Your task to perform on an android device: see tabs open on other devices in the chrome app Image 0: 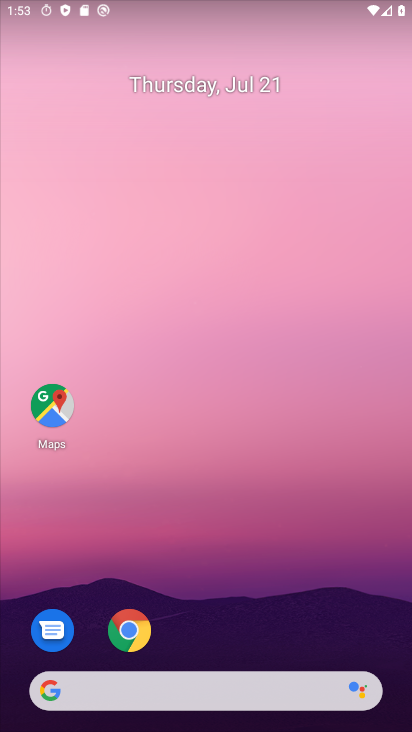
Step 0: drag from (204, 646) to (246, 110)
Your task to perform on an android device: see tabs open on other devices in the chrome app Image 1: 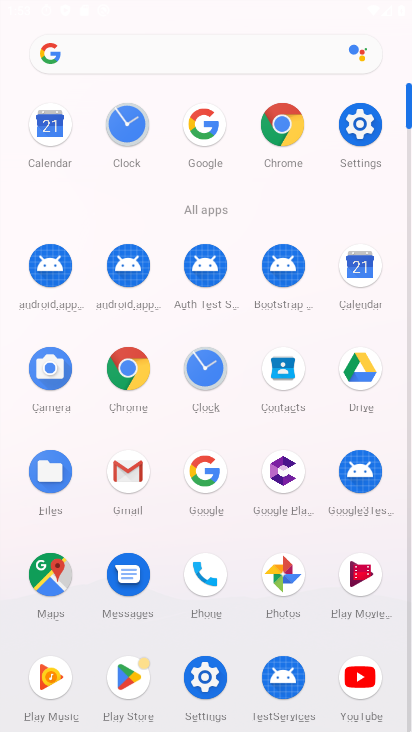
Step 1: click (285, 115)
Your task to perform on an android device: see tabs open on other devices in the chrome app Image 2: 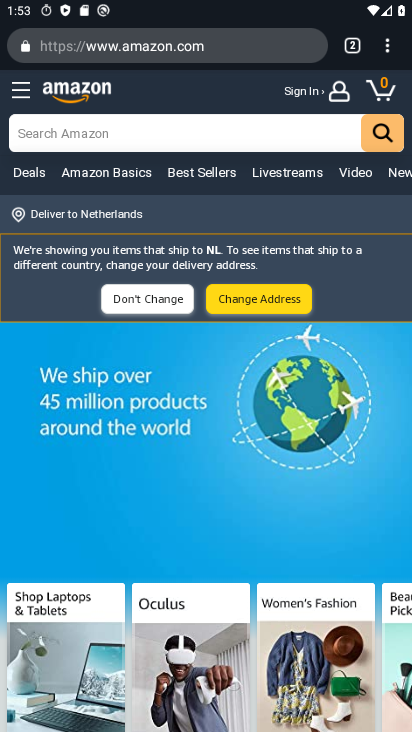
Step 2: click (384, 49)
Your task to perform on an android device: see tabs open on other devices in the chrome app Image 3: 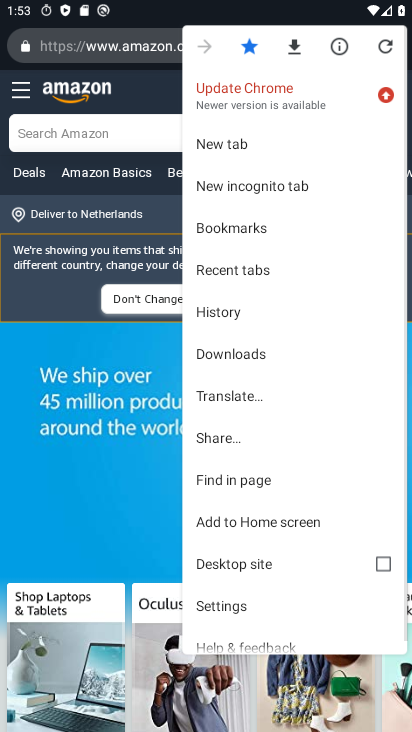
Step 3: click (152, 23)
Your task to perform on an android device: see tabs open on other devices in the chrome app Image 4: 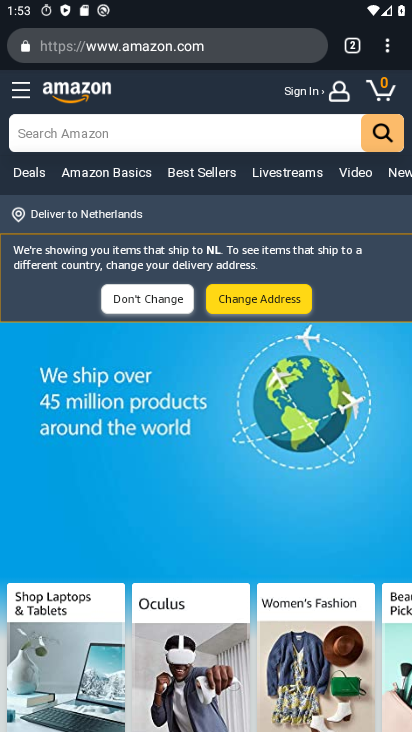
Step 4: click (349, 46)
Your task to perform on an android device: see tabs open on other devices in the chrome app Image 5: 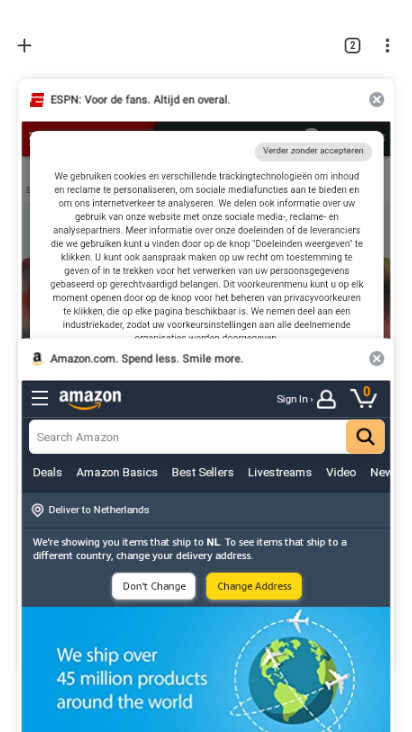
Step 5: click (25, 45)
Your task to perform on an android device: see tabs open on other devices in the chrome app Image 6: 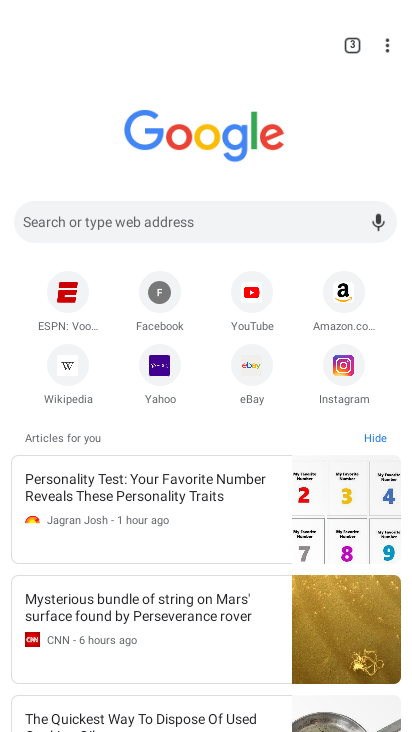
Step 6: task complete